Your task to perform on an android device: turn on translation in the chrome app Image 0: 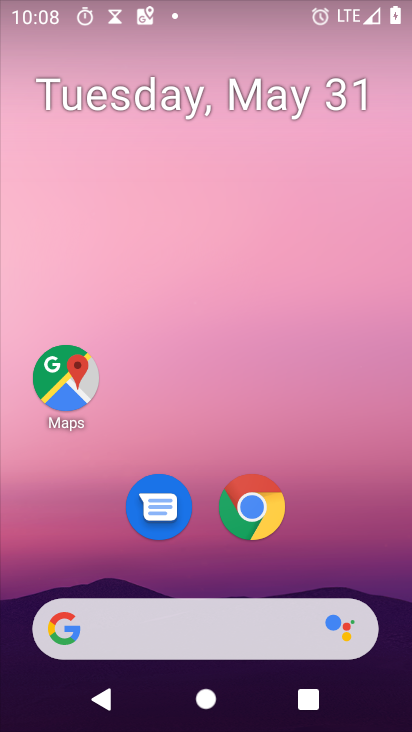
Step 0: click (242, 494)
Your task to perform on an android device: turn on translation in the chrome app Image 1: 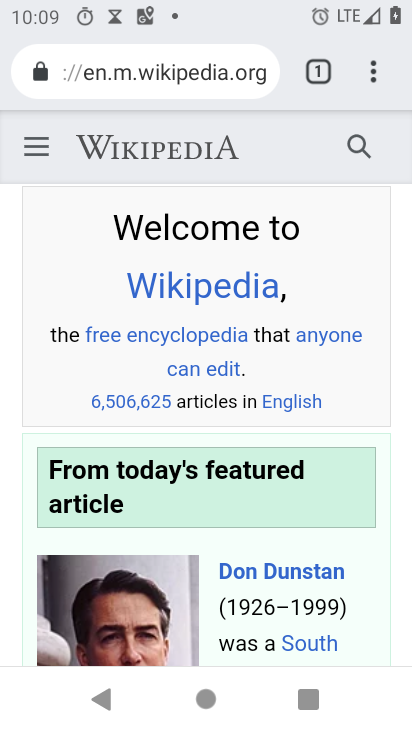
Step 1: click (373, 70)
Your task to perform on an android device: turn on translation in the chrome app Image 2: 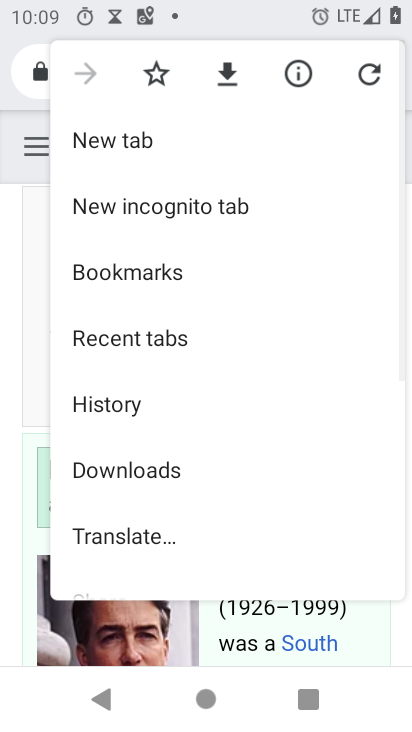
Step 2: drag from (161, 532) to (230, 106)
Your task to perform on an android device: turn on translation in the chrome app Image 3: 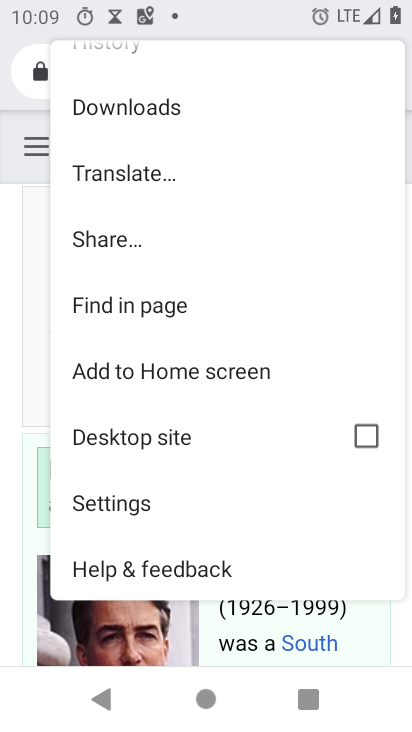
Step 3: click (115, 493)
Your task to perform on an android device: turn on translation in the chrome app Image 4: 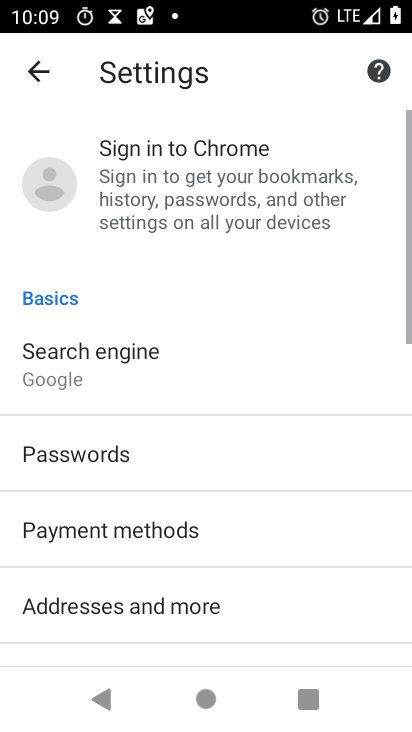
Step 4: drag from (6, 584) to (177, 87)
Your task to perform on an android device: turn on translation in the chrome app Image 5: 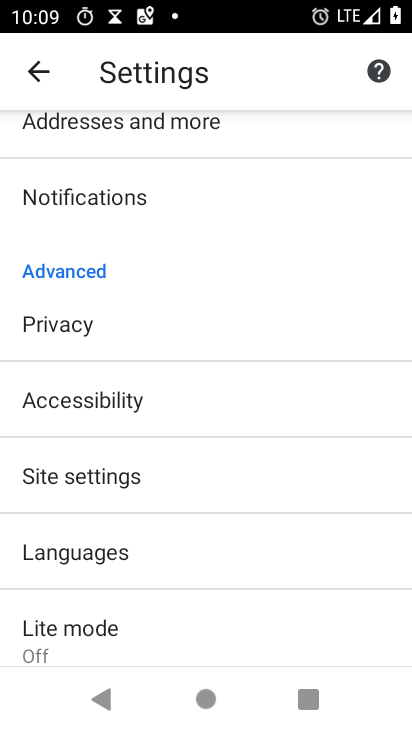
Step 5: click (81, 549)
Your task to perform on an android device: turn on translation in the chrome app Image 6: 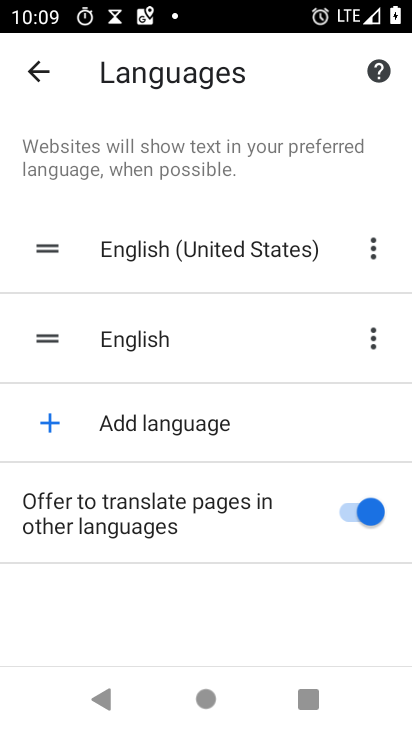
Step 6: task complete